Your task to perform on an android device: Go to accessibility settings Image 0: 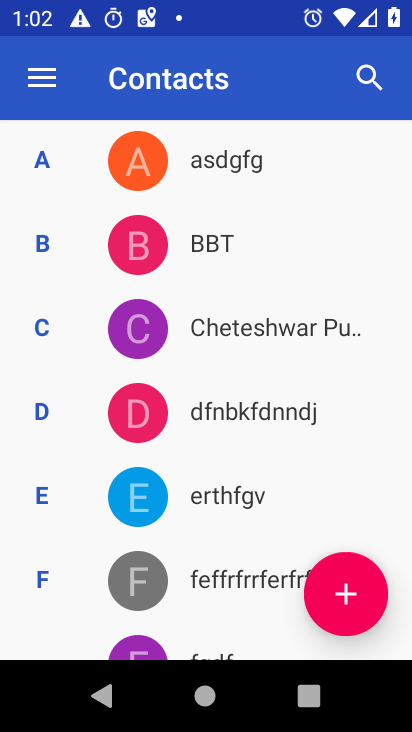
Step 0: press back button
Your task to perform on an android device: Go to accessibility settings Image 1: 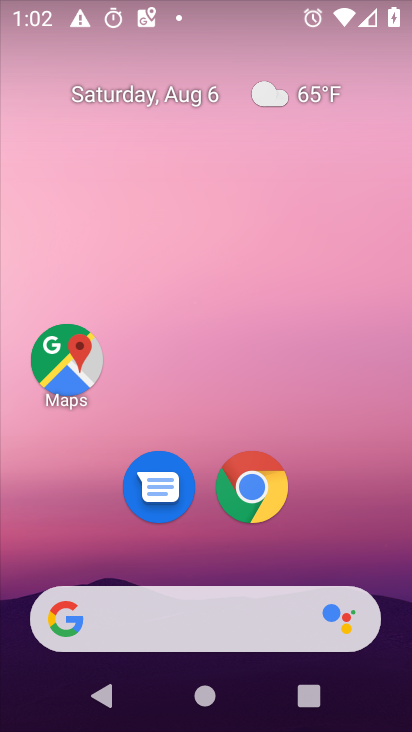
Step 1: drag from (204, 479) to (304, 11)
Your task to perform on an android device: Go to accessibility settings Image 2: 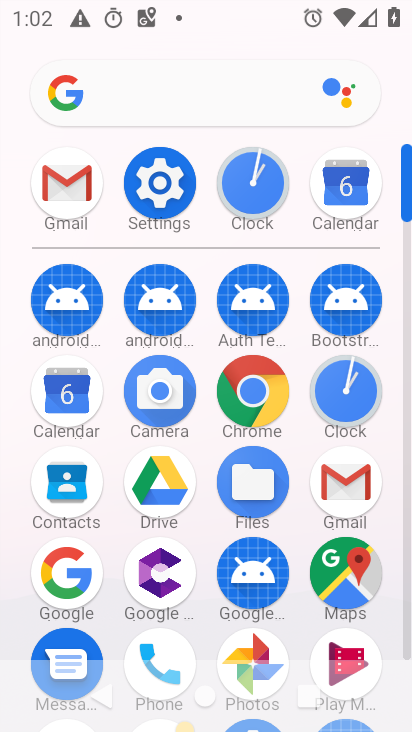
Step 2: click (159, 182)
Your task to perform on an android device: Go to accessibility settings Image 3: 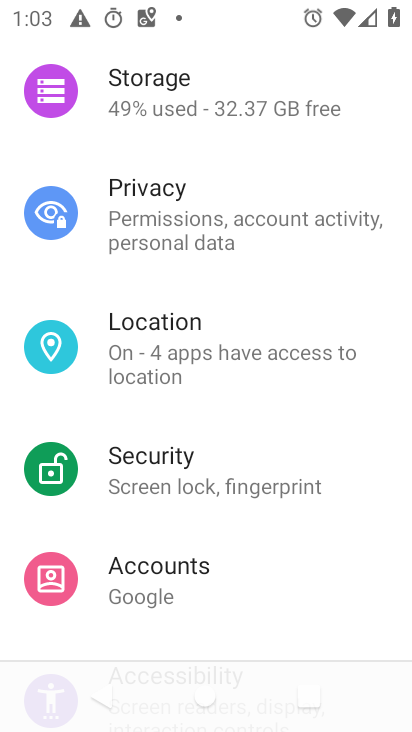
Step 3: drag from (215, 526) to (306, 11)
Your task to perform on an android device: Go to accessibility settings Image 4: 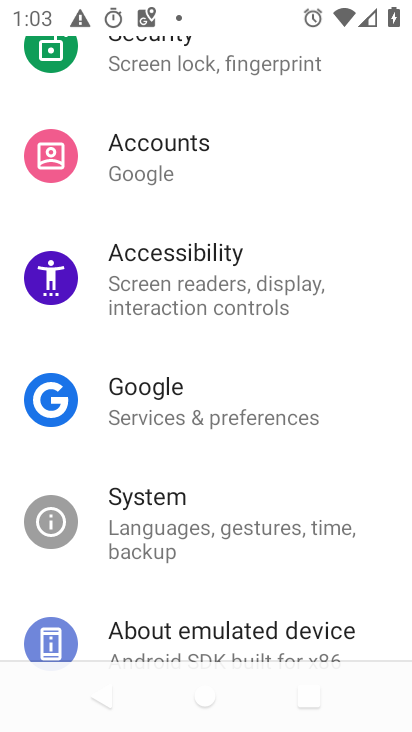
Step 4: click (170, 294)
Your task to perform on an android device: Go to accessibility settings Image 5: 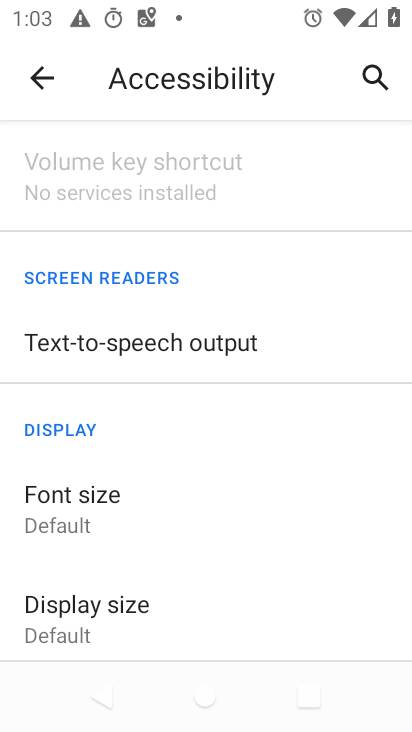
Step 5: task complete